Your task to perform on an android device: change the clock style Image 0: 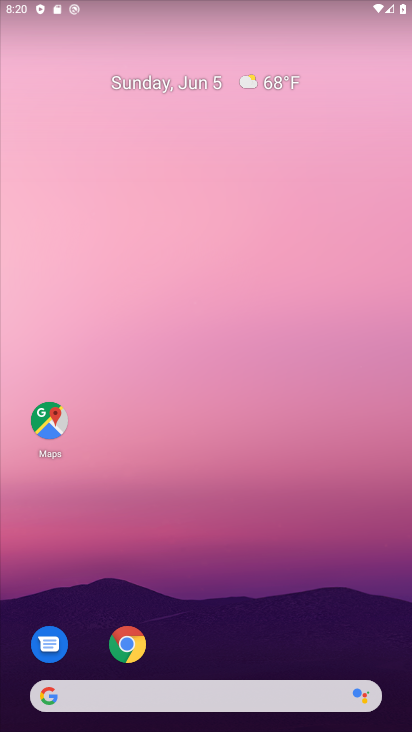
Step 0: task complete